Your task to perform on an android device: Search for razer huntsman on walmart, select the first entry, add it to the cart, then select checkout. Image 0: 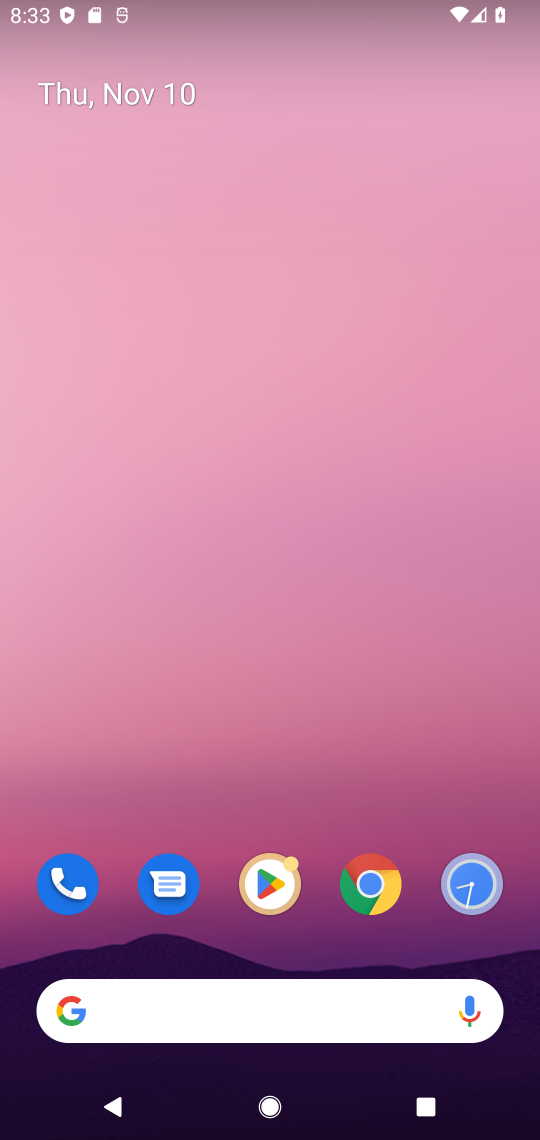
Step 0: click (269, 992)
Your task to perform on an android device: Search for razer huntsman on walmart, select the first entry, add it to the cart, then select checkout. Image 1: 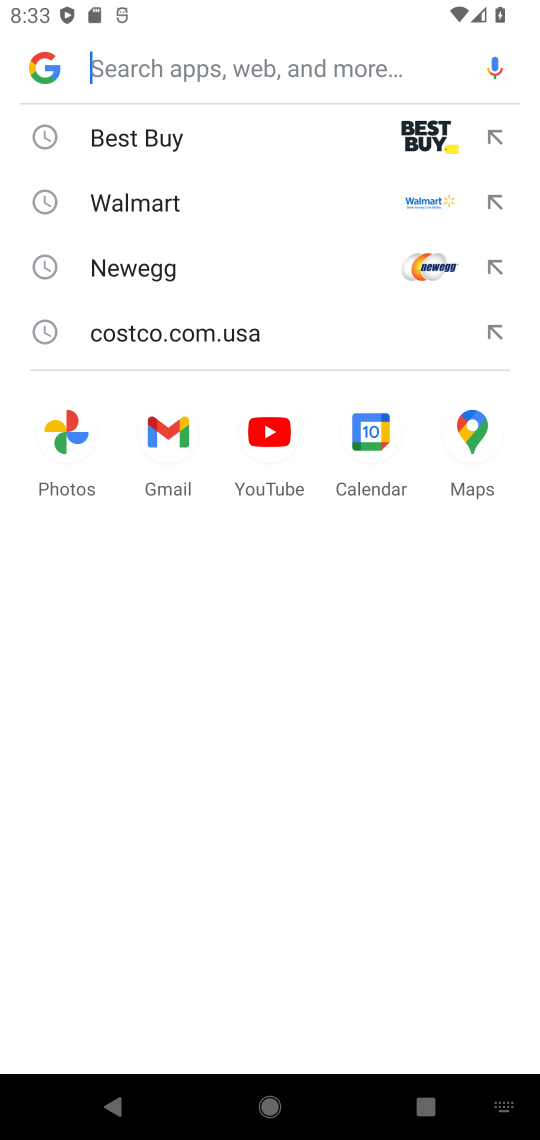
Step 1: click (296, 211)
Your task to perform on an android device: Search for razer huntsman on walmart, select the first entry, add it to the cart, then select checkout. Image 2: 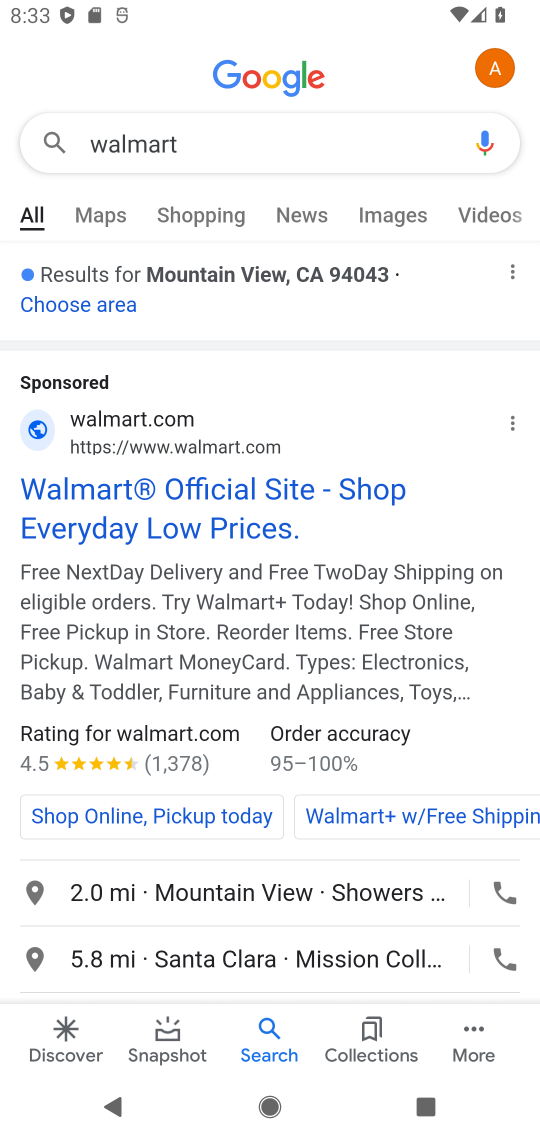
Step 2: click (92, 420)
Your task to perform on an android device: Search for razer huntsman on walmart, select the first entry, add it to the cart, then select checkout. Image 3: 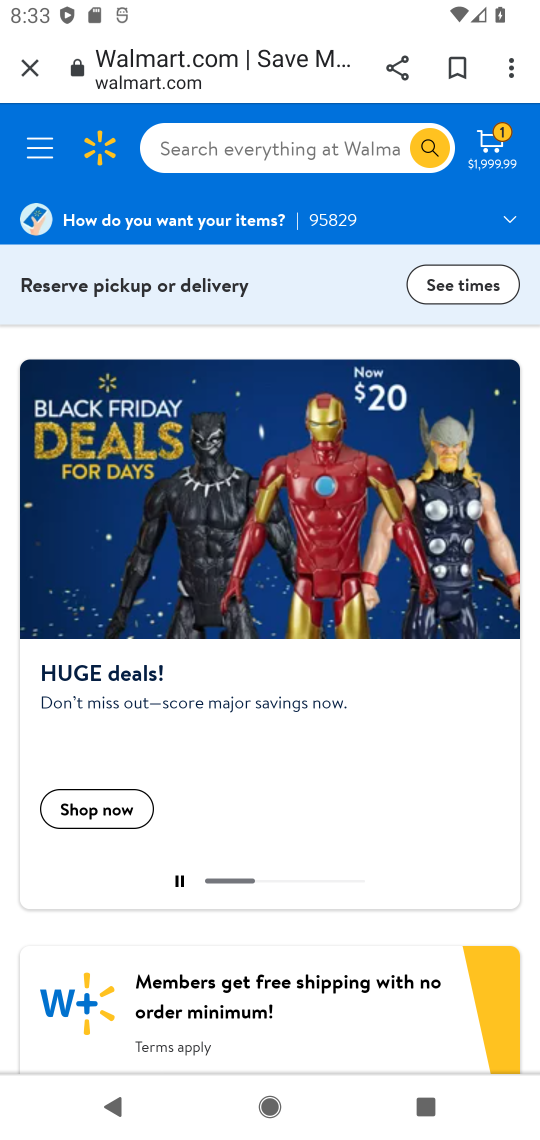
Step 3: click (291, 159)
Your task to perform on an android device: Search for razer huntsman on walmart, select the first entry, add it to the cart, then select checkout. Image 4: 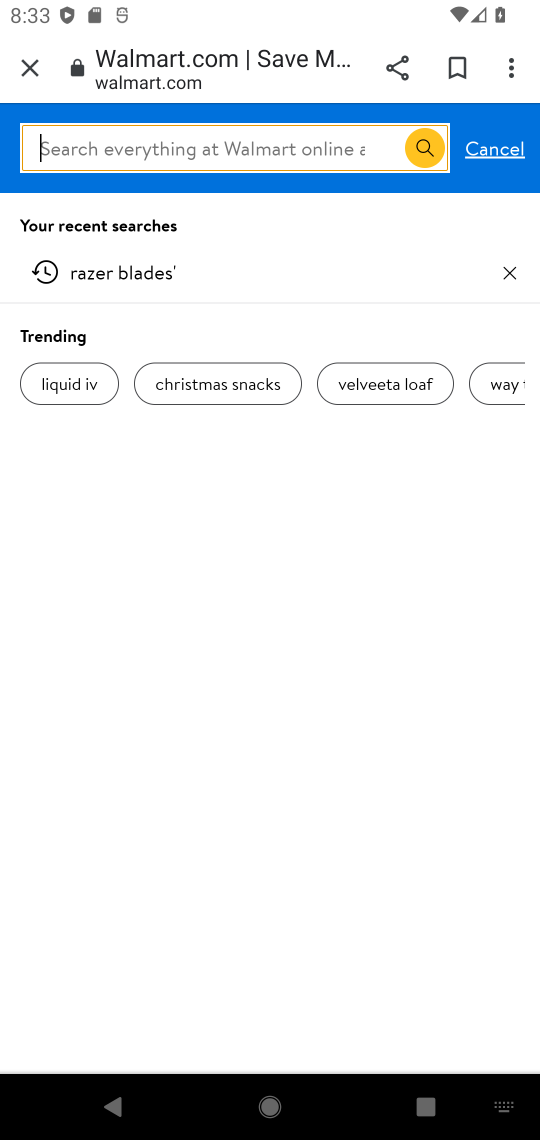
Step 4: type "razer huntsman"
Your task to perform on an android device: Search for razer huntsman on walmart, select the first entry, add it to the cart, then select checkout. Image 5: 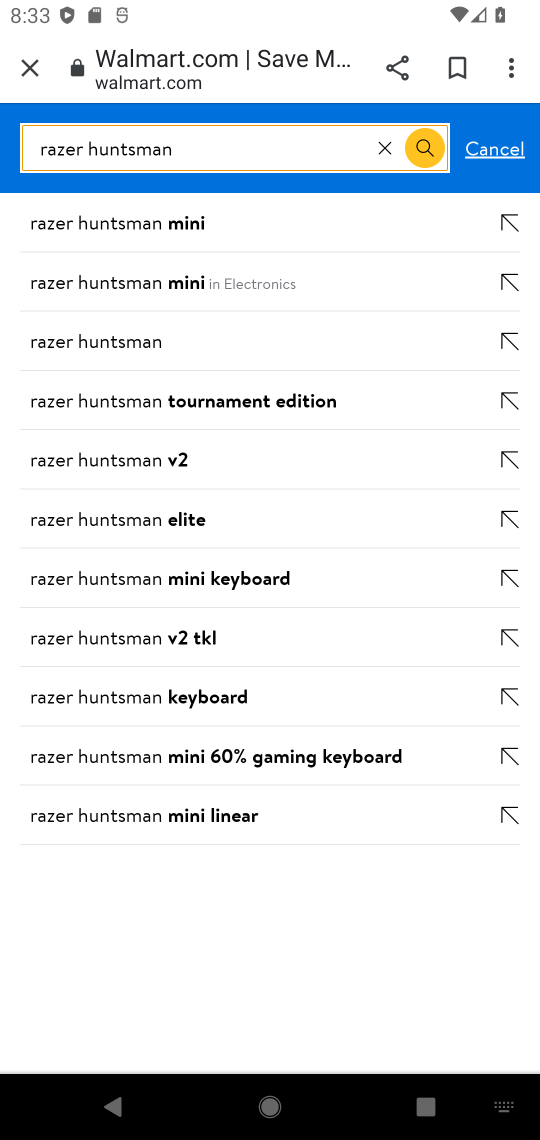
Step 5: click (103, 340)
Your task to perform on an android device: Search for razer huntsman on walmart, select the first entry, add it to the cart, then select checkout. Image 6: 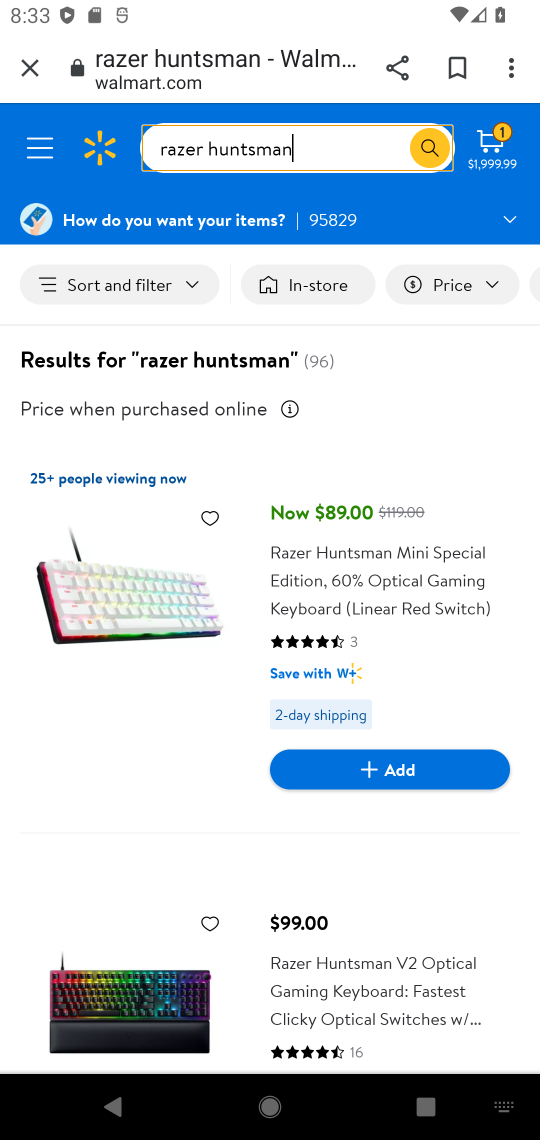
Step 6: click (375, 769)
Your task to perform on an android device: Search for razer huntsman on walmart, select the first entry, add it to the cart, then select checkout. Image 7: 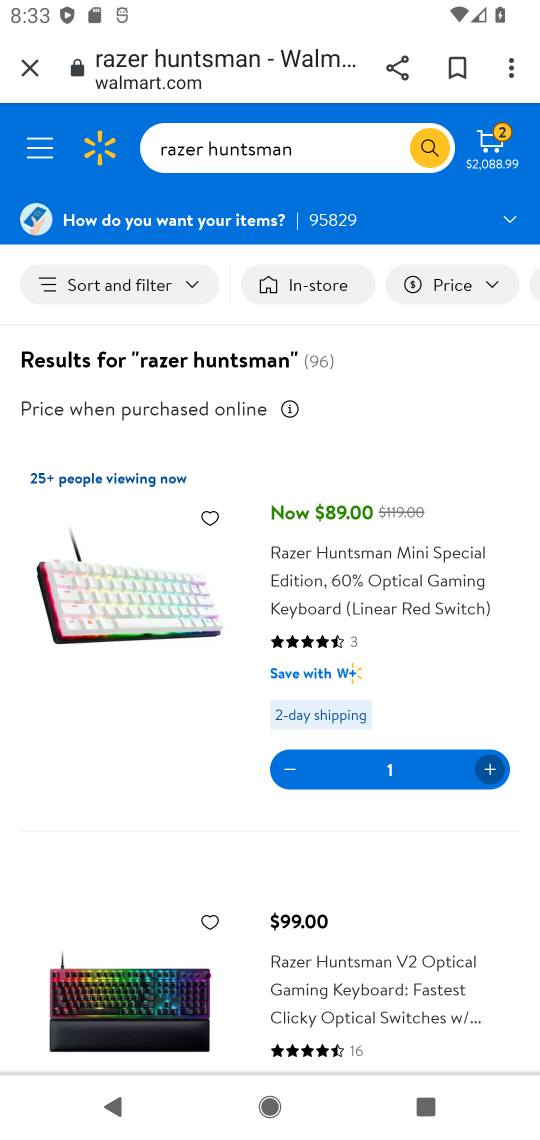
Step 7: click (493, 144)
Your task to perform on an android device: Search for razer huntsman on walmart, select the first entry, add it to the cart, then select checkout. Image 8: 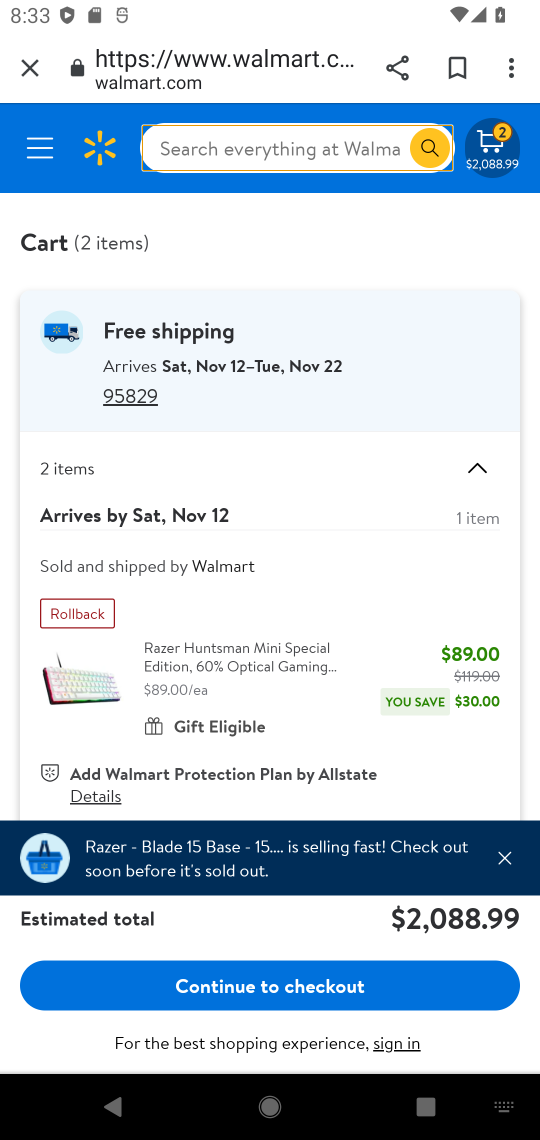
Step 8: click (245, 980)
Your task to perform on an android device: Search for razer huntsman on walmart, select the first entry, add it to the cart, then select checkout. Image 9: 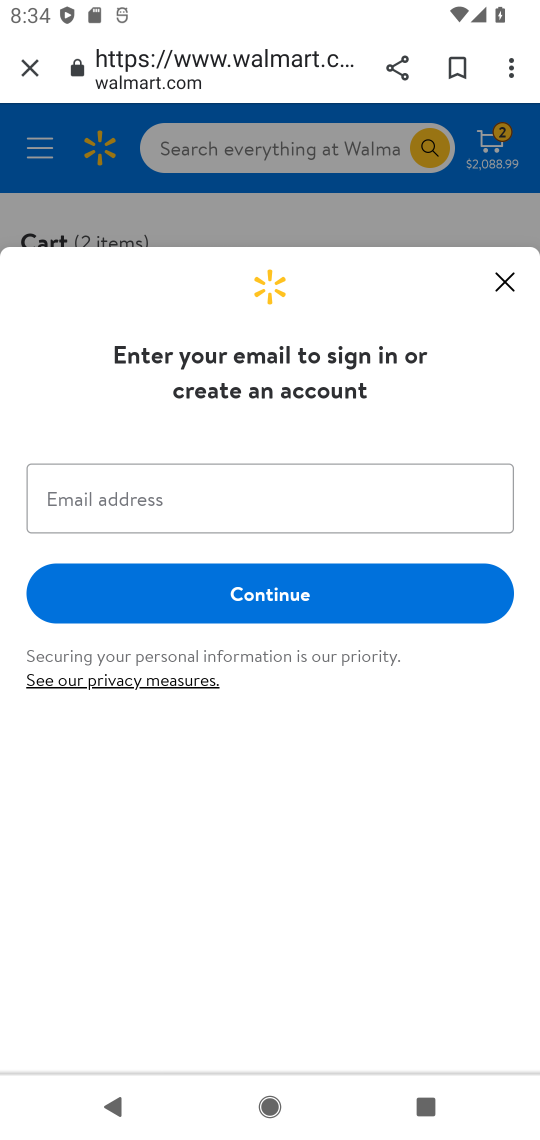
Step 9: task complete